Your task to perform on an android device: When is my next appointment? Image 0: 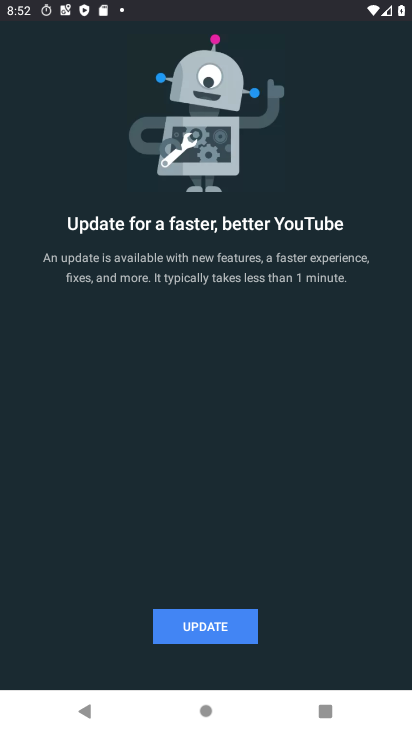
Step 0: press back button
Your task to perform on an android device: When is my next appointment? Image 1: 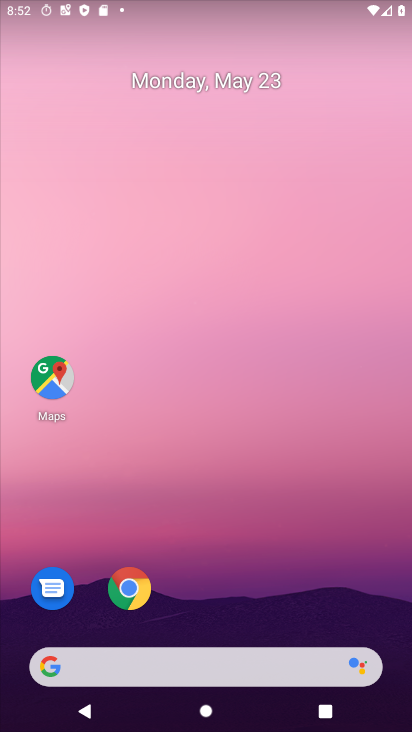
Step 1: drag from (394, 675) to (392, 150)
Your task to perform on an android device: When is my next appointment? Image 2: 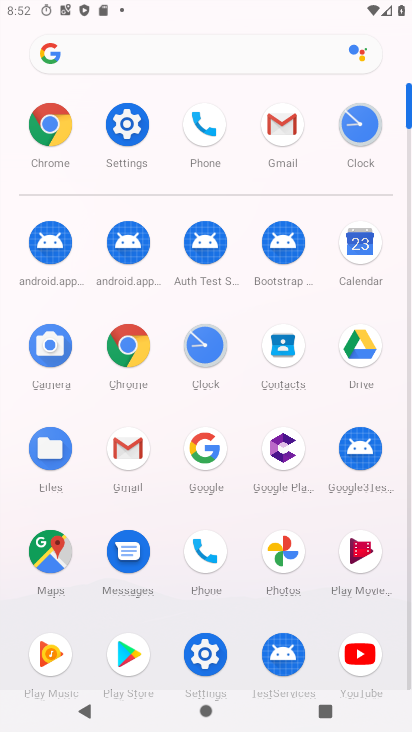
Step 2: click (367, 242)
Your task to perform on an android device: When is my next appointment? Image 3: 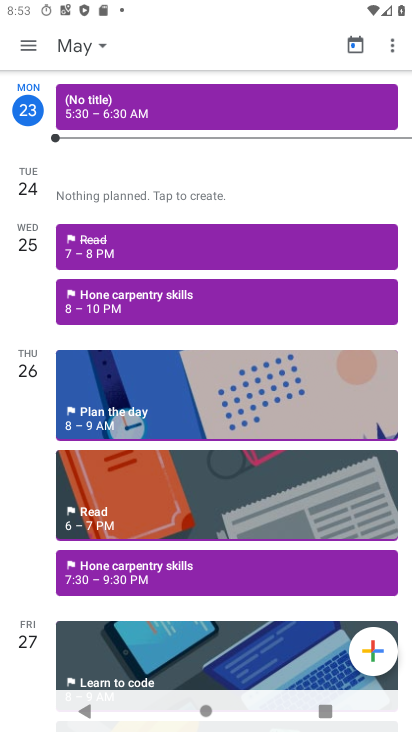
Step 3: click (29, 42)
Your task to perform on an android device: When is my next appointment? Image 4: 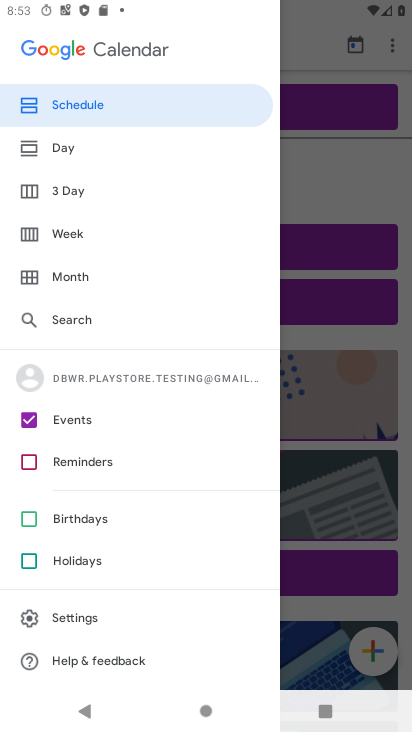
Step 4: click (98, 102)
Your task to perform on an android device: When is my next appointment? Image 5: 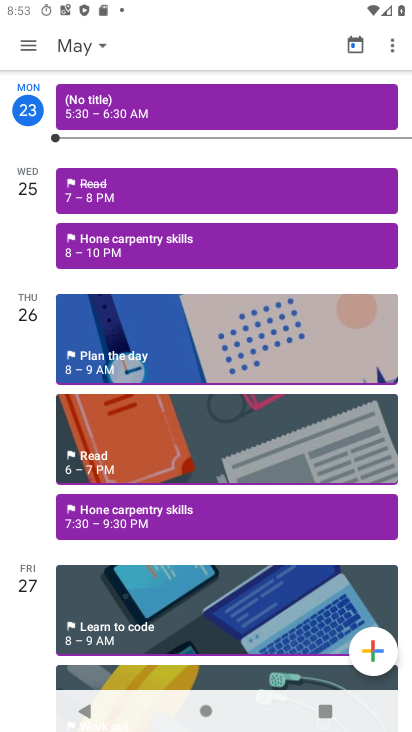
Step 5: task complete